Your task to perform on an android device: Search for "panasonic triple a" on target.com, select the first entry, add it to the cart, then select checkout. Image 0: 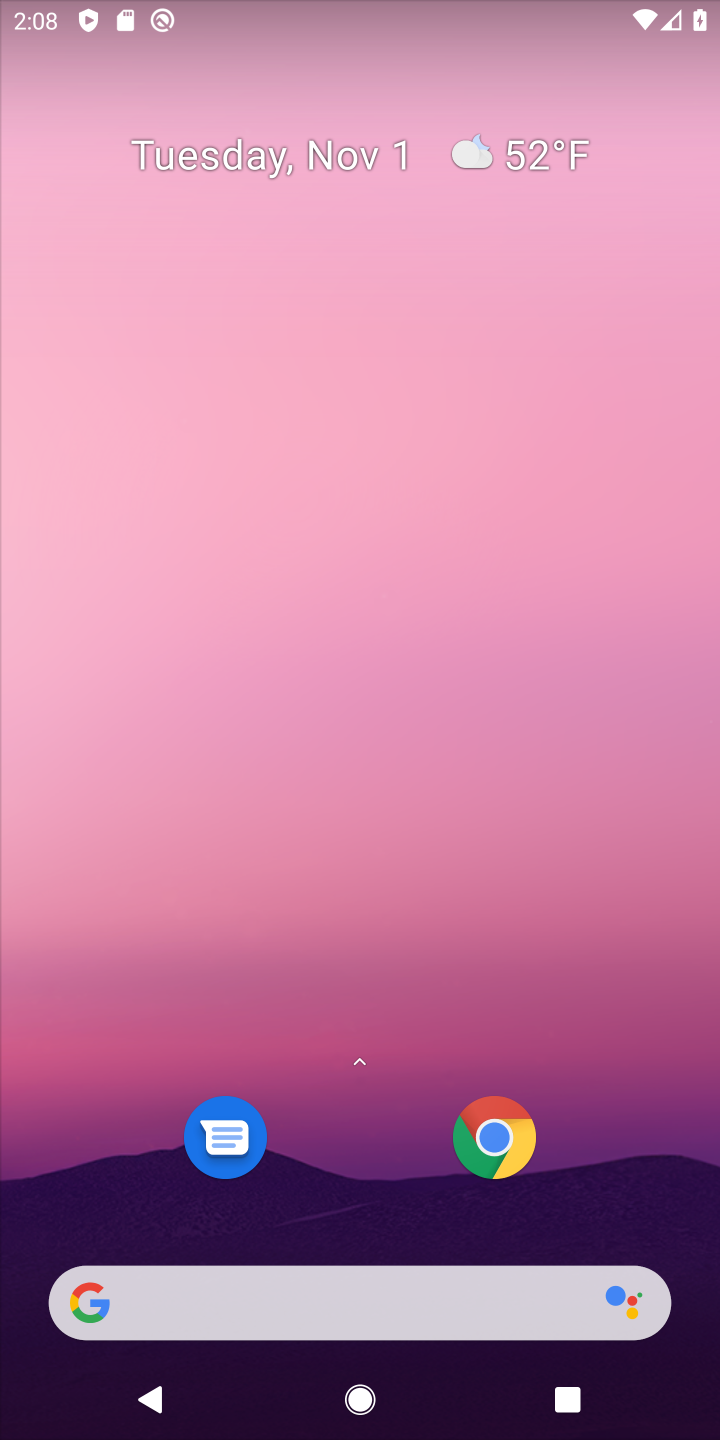
Step 0: click (508, 1305)
Your task to perform on an android device: Search for "panasonic triple a" on target.com, select the first entry, add it to the cart, then select checkout. Image 1: 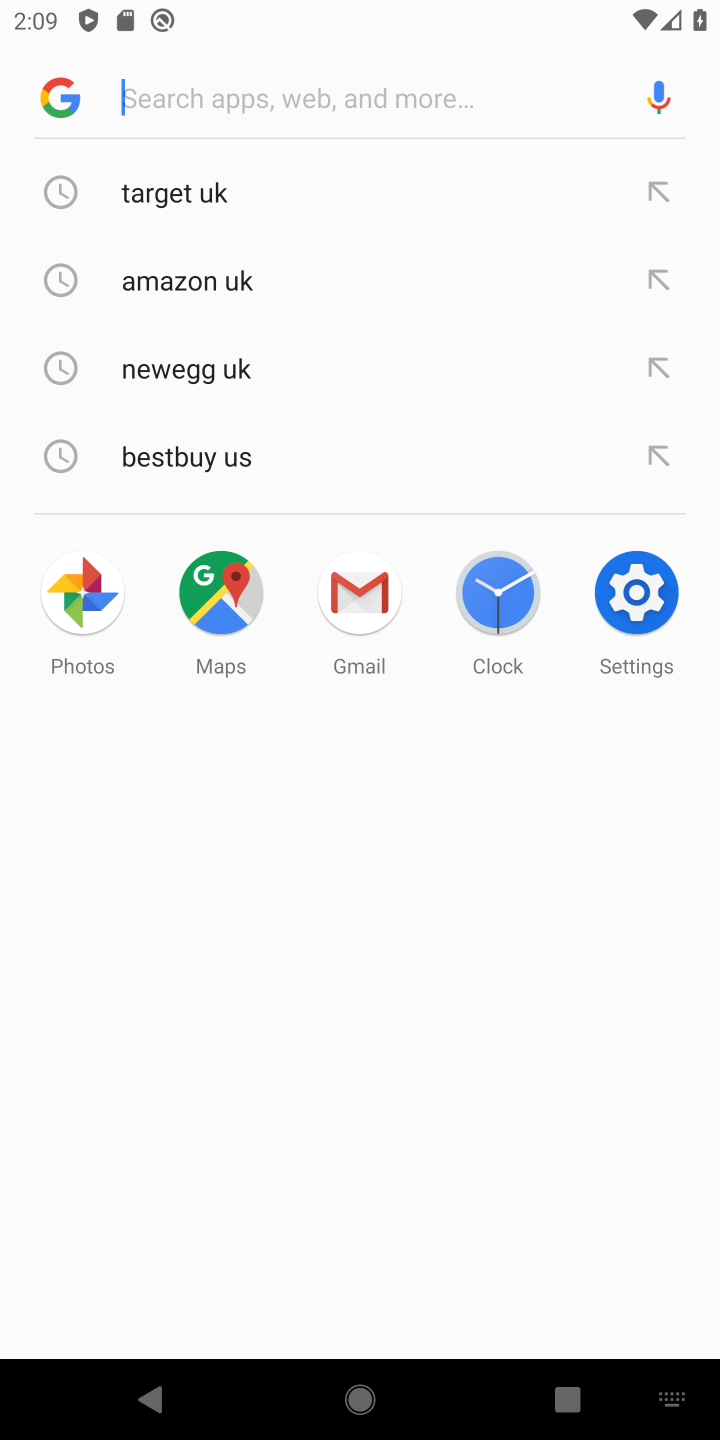
Step 1: click (172, 189)
Your task to perform on an android device: Search for "panasonic triple a" on target.com, select the first entry, add it to the cart, then select checkout. Image 2: 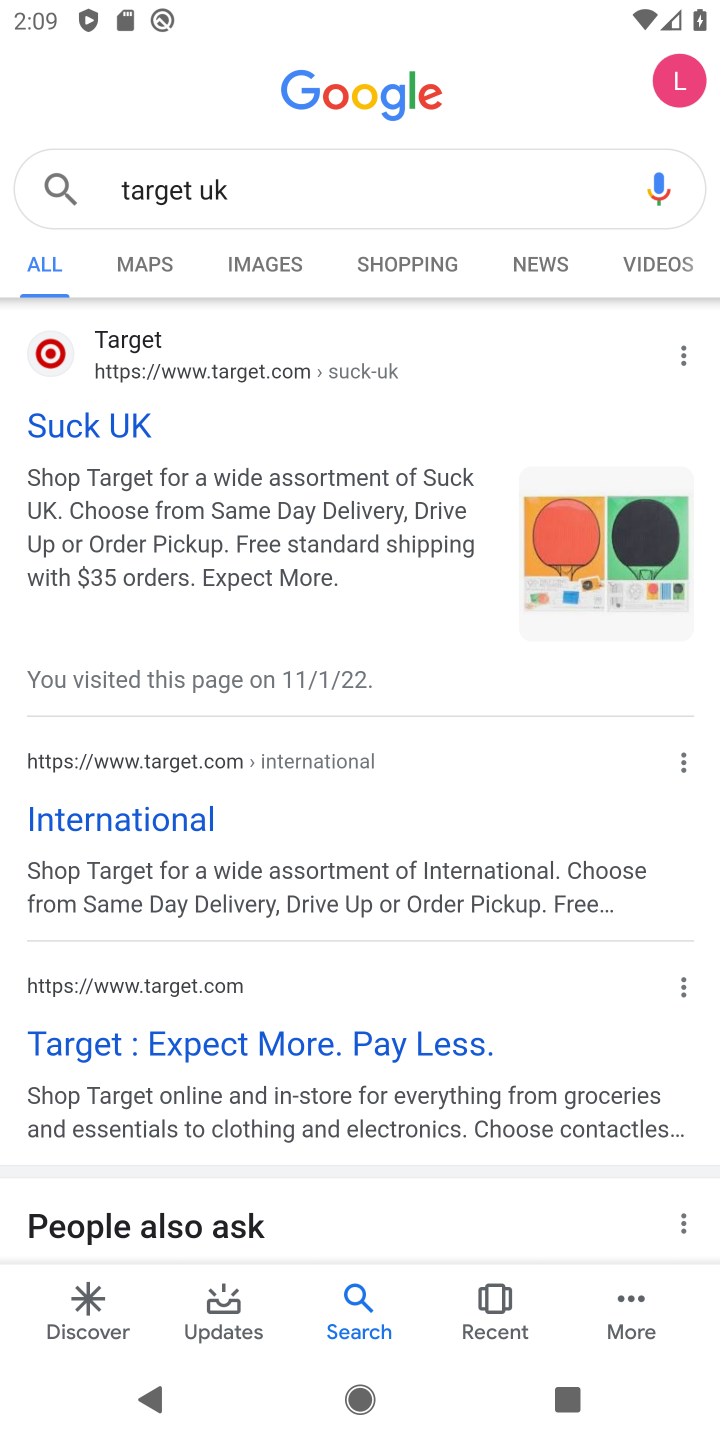
Step 2: click (136, 422)
Your task to perform on an android device: Search for "panasonic triple a" on target.com, select the first entry, add it to the cart, then select checkout. Image 3: 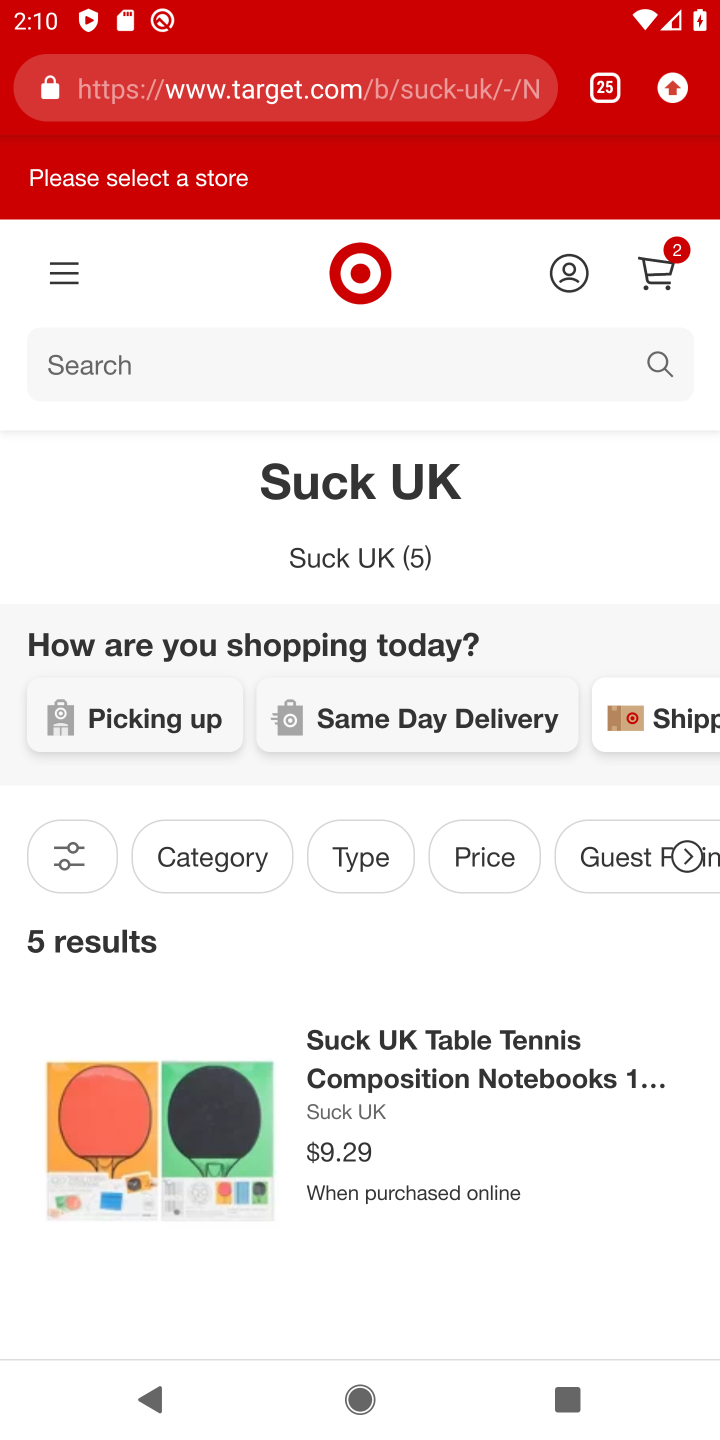
Step 3: click (212, 352)
Your task to perform on an android device: Search for "panasonic triple a" on target.com, select the first entry, add it to the cart, then select checkout. Image 4: 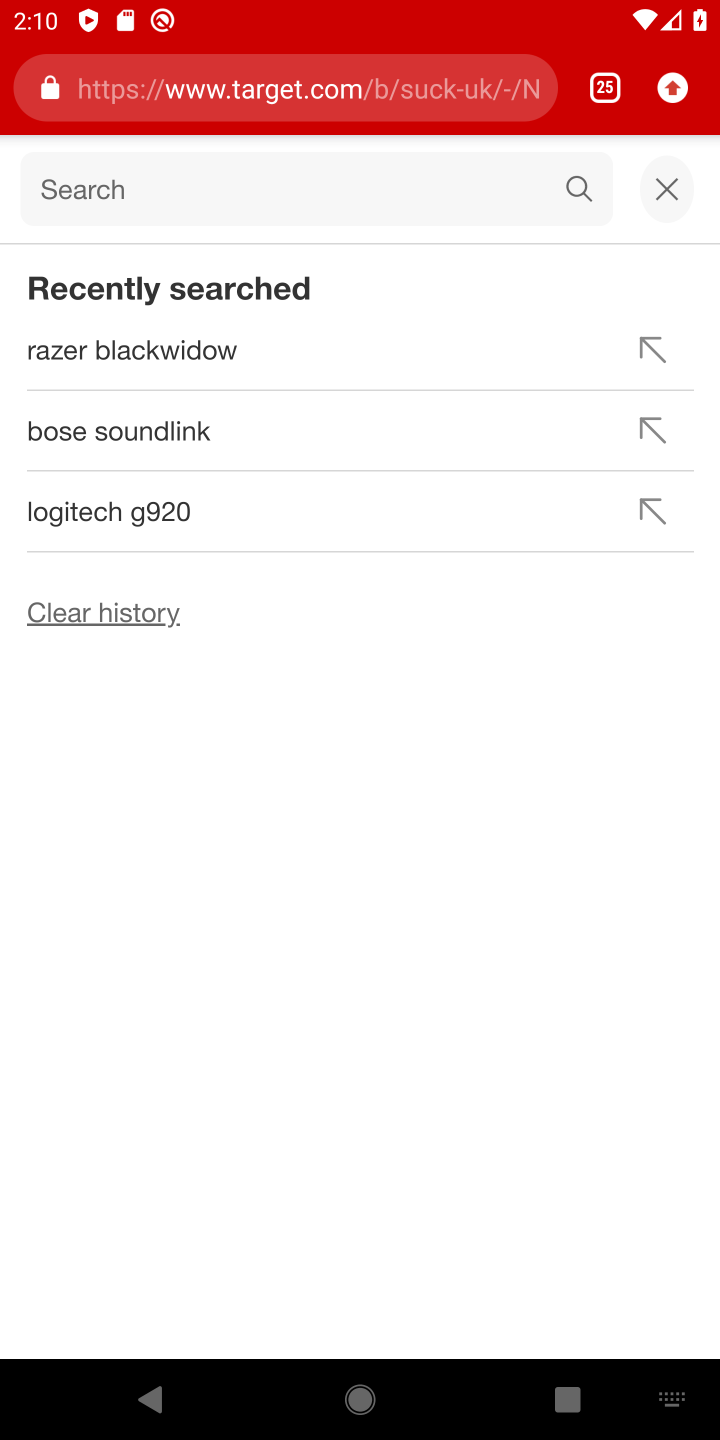
Step 4: type "panasonic"
Your task to perform on an android device: Search for "panasonic triple a" on target.com, select the first entry, add it to the cart, then select checkout. Image 5: 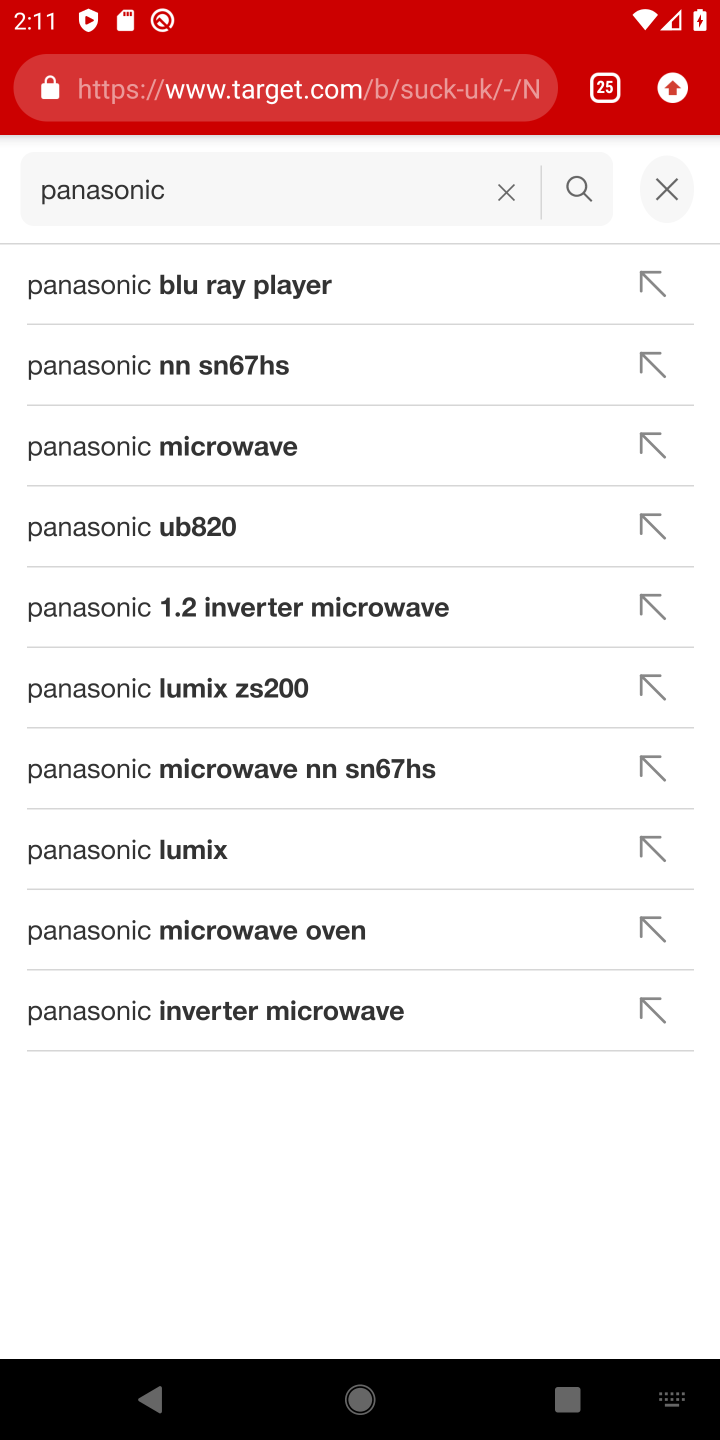
Step 5: click (162, 265)
Your task to perform on an android device: Search for "panasonic triple a" on target.com, select the first entry, add it to the cart, then select checkout. Image 6: 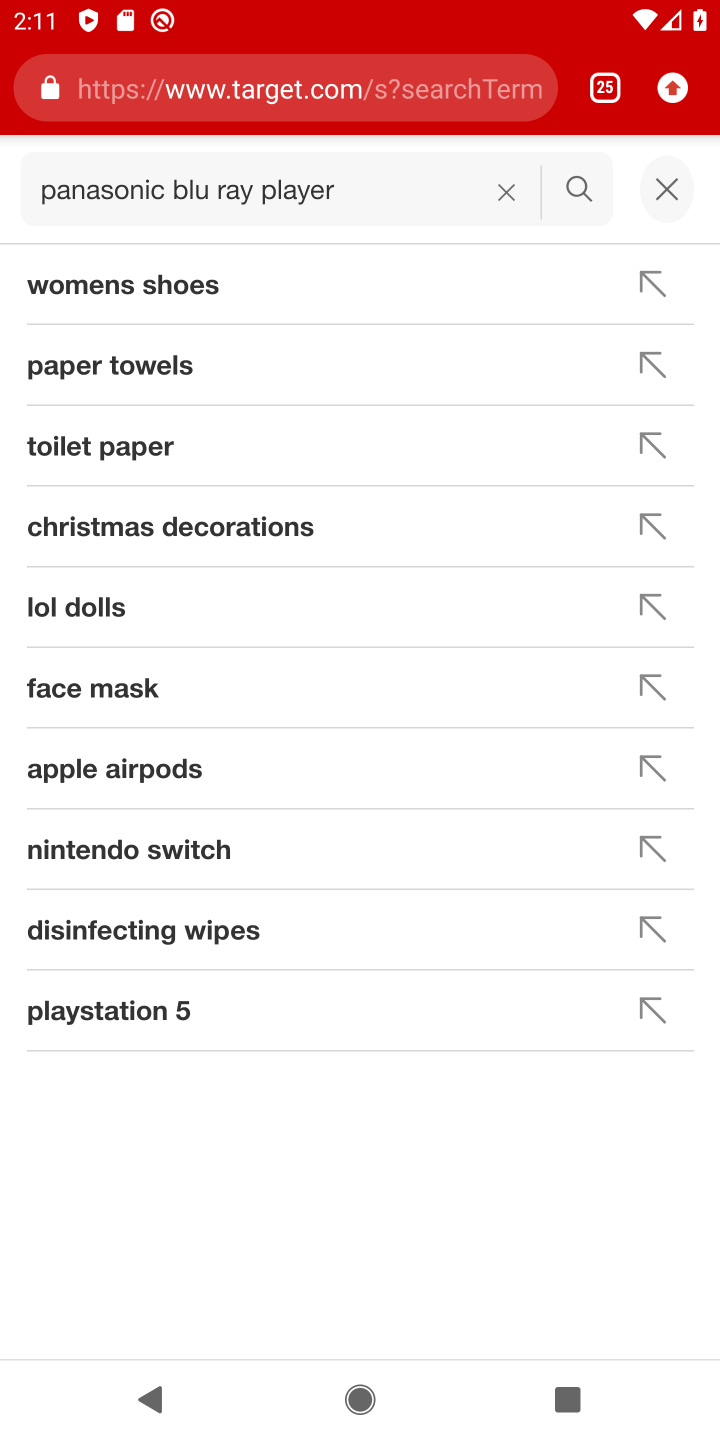
Step 6: task complete